Your task to perform on an android device: clear all cookies in the chrome app Image 0: 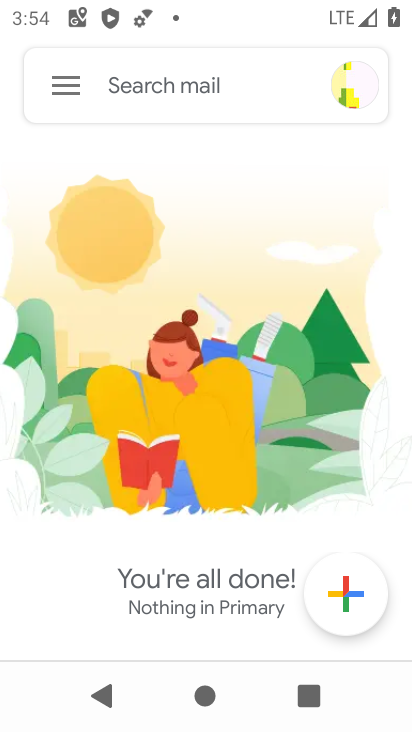
Step 0: press home button
Your task to perform on an android device: clear all cookies in the chrome app Image 1: 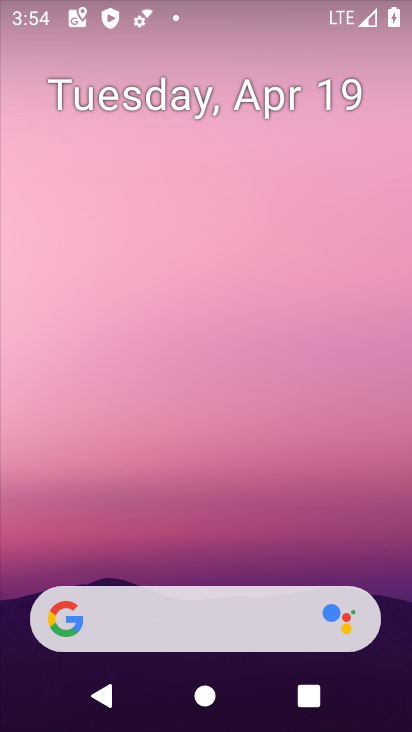
Step 1: drag from (180, 529) to (211, 168)
Your task to perform on an android device: clear all cookies in the chrome app Image 2: 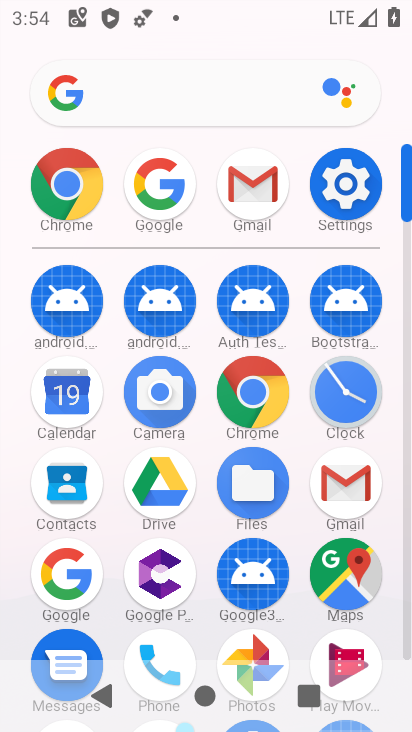
Step 2: click (65, 186)
Your task to perform on an android device: clear all cookies in the chrome app Image 3: 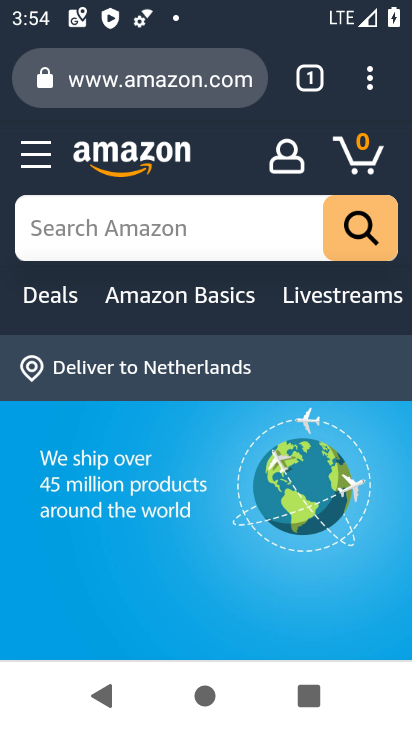
Step 3: click (376, 82)
Your task to perform on an android device: clear all cookies in the chrome app Image 4: 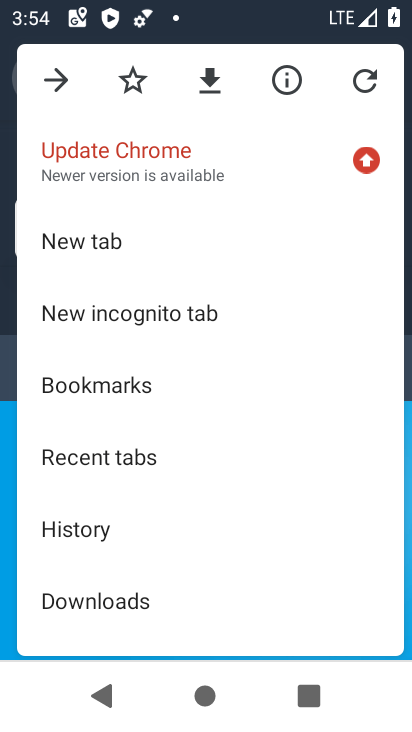
Step 4: click (94, 527)
Your task to perform on an android device: clear all cookies in the chrome app Image 5: 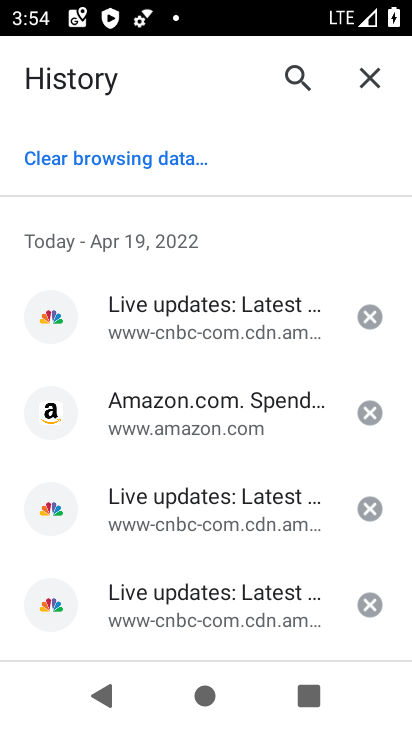
Step 5: click (113, 167)
Your task to perform on an android device: clear all cookies in the chrome app Image 6: 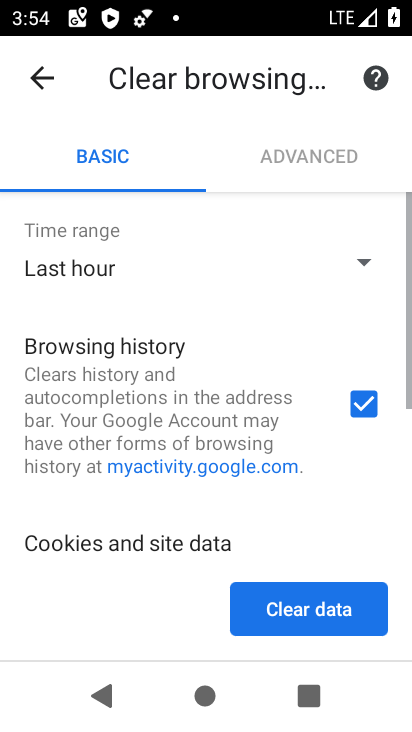
Step 6: click (113, 229)
Your task to perform on an android device: clear all cookies in the chrome app Image 7: 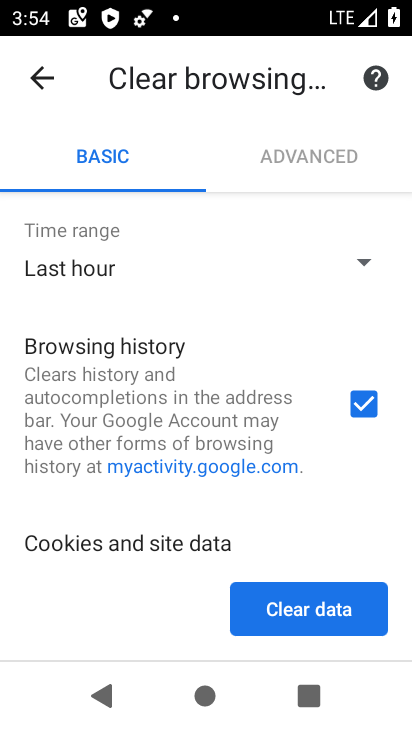
Step 7: click (365, 255)
Your task to perform on an android device: clear all cookies in the chrome app Image 8: 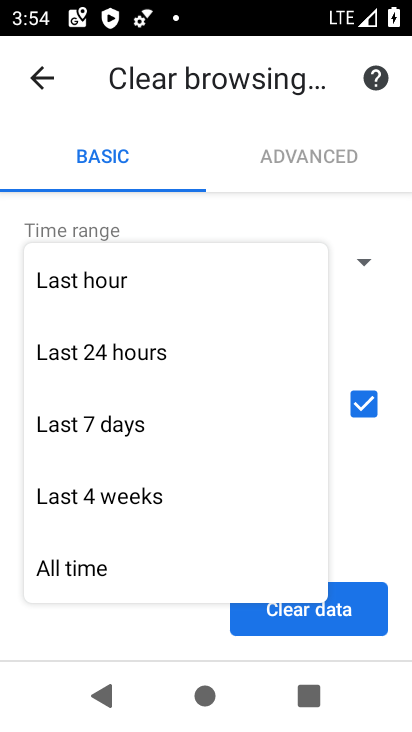
Step 8: click (63, 587)
Your task to perform on an android device: clear all cookies in the chrome app Image 9: 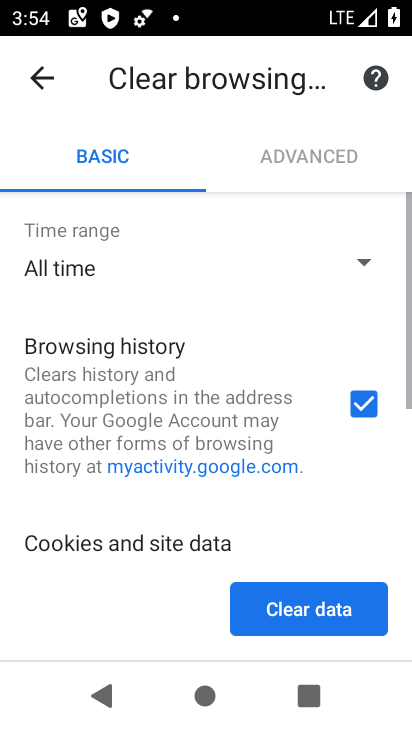
Step 9: drag from (247, 507) to (251, 245)
Your task to perform on an android device: clear all cookies in the chrome app Image 10: 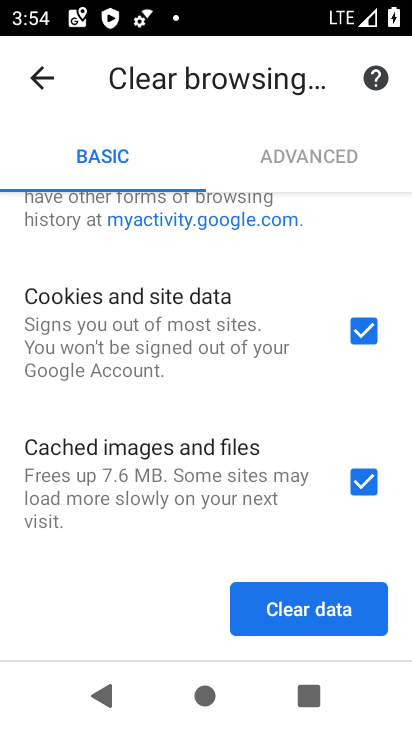
Step 10: click (305, 608)
Your task to perform on an android device: clear all cookies in the chrome app Image 11: 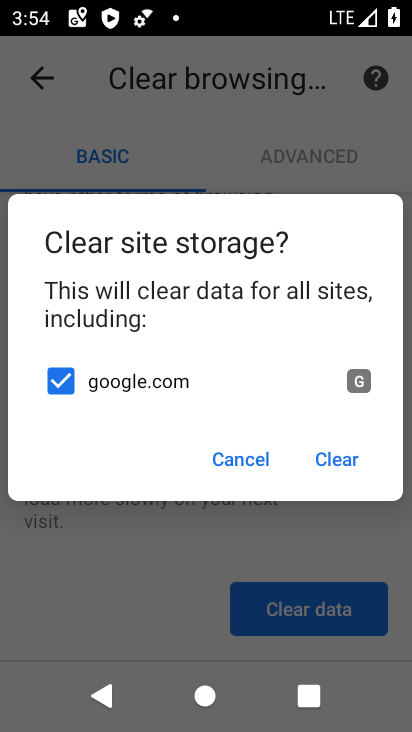
Step 11: click (342, 456)
Your task to perform on an android device: clear all cookies in the chrome app Image 12: 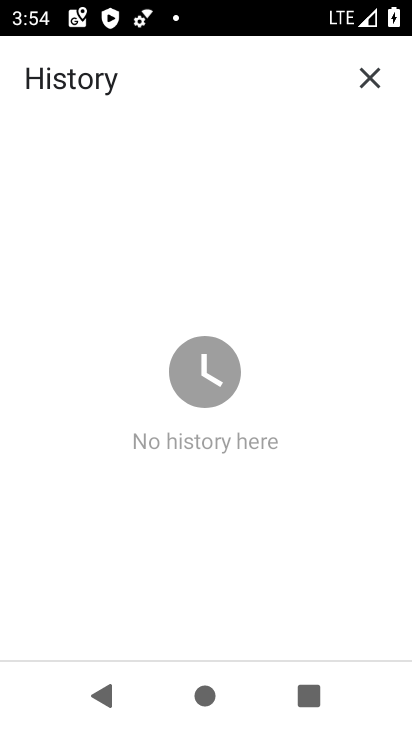
Step 12: task complete